Your task to perform on an android device: turn on improve location accuracy Image 0: 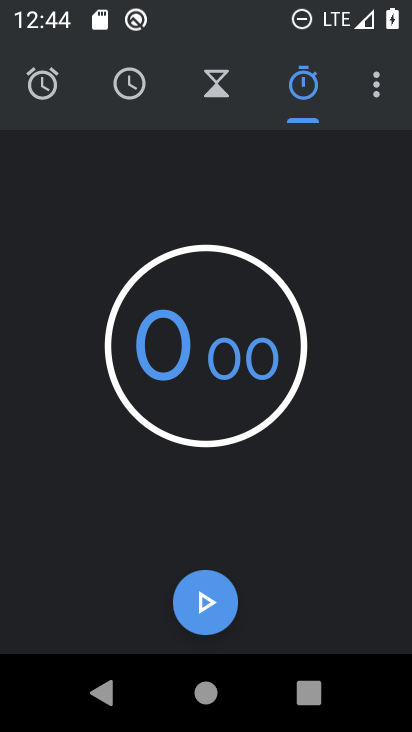
Step 0: press home button
Your task to perform on an android device: turn on improve location accuracy Image 1: 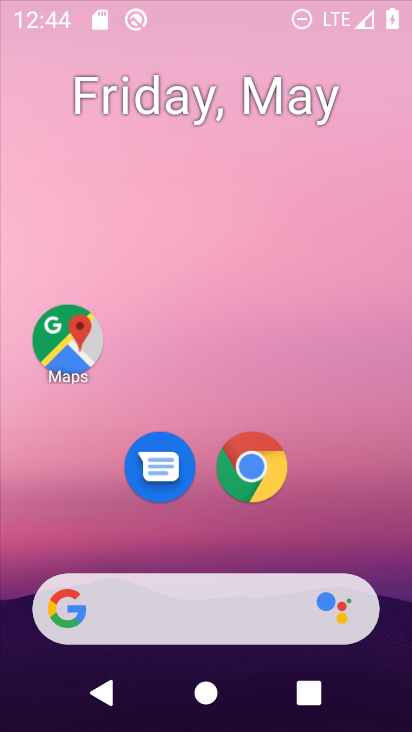
Step 1: drag from (261, 605) to (265, 8)
Your task to perform on an android device: turn on improve location accuracy Image 2: 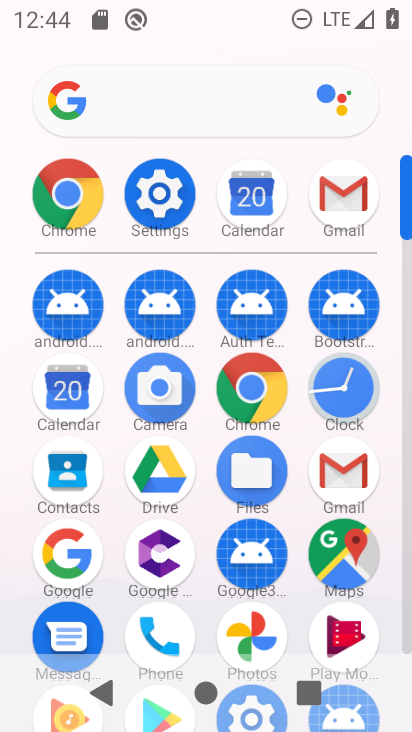
Step 2: click (154, 176)
Your task to perform on an android device: turn on improve location accuracy Image 3: 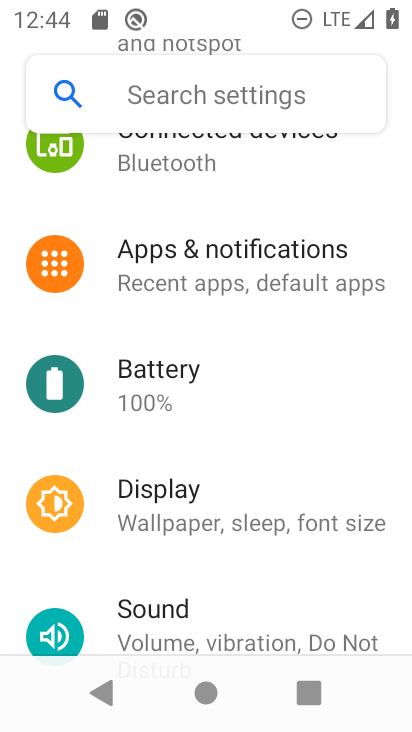
Step 3: drag from (286, 609) to (285, 76)
Your task to perform on an android device: turn on improve location accuracy Image 4: 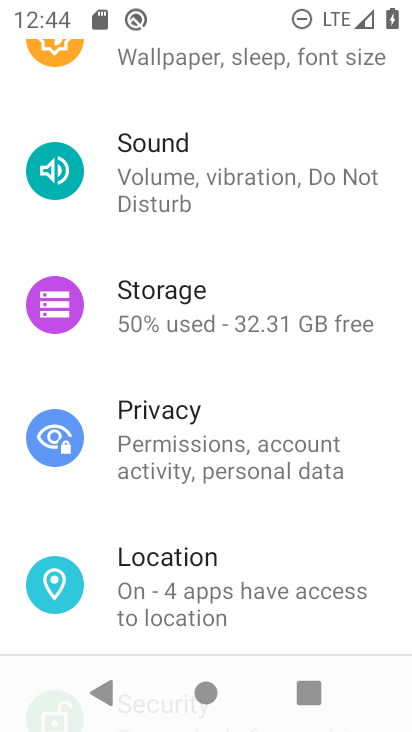
Step 4: click (245, 594)
Your task to perform on an android device: turn on improve location accuracy Image 5: 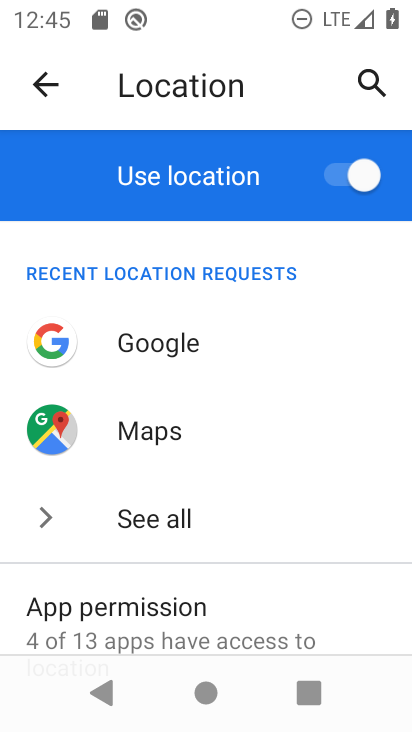
Step 5: drag from (307, 586) to (274, 180)
Your task to perform on an android device: turn on improve location accuracy Image 6: 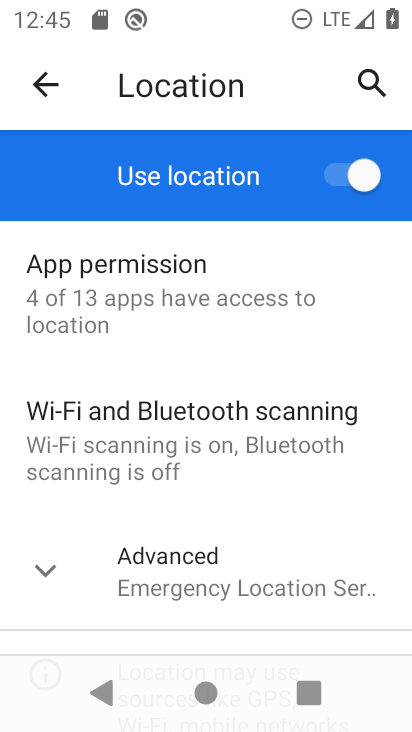
Step 6: click (246, 560)
Your task to perform on an android device: turn on improve location accuracy Image 7: 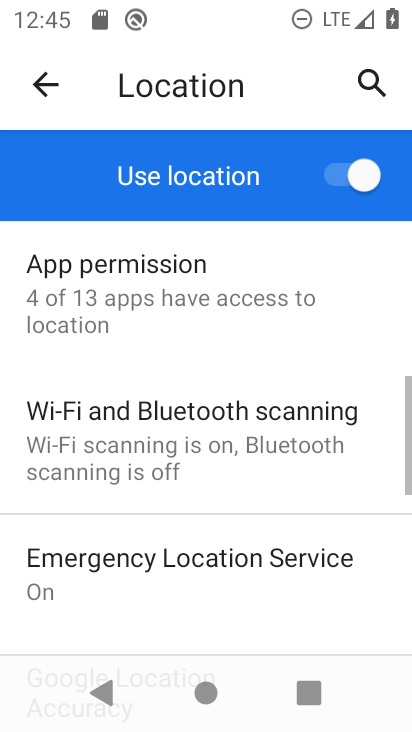
Step 7: drag from (286, 630) to (311, 228)
Your task to perform on an android device: turn on improve location accuracy Image 8: 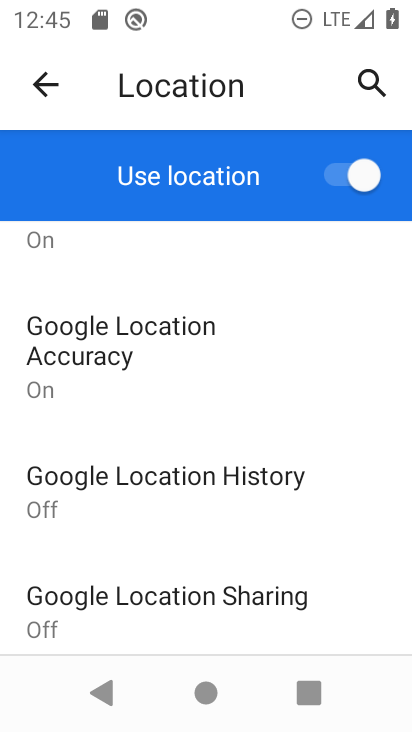
Step 8: click (155, 352)
Your task to perform on an android device: turn on improve location accuracy Image 9: 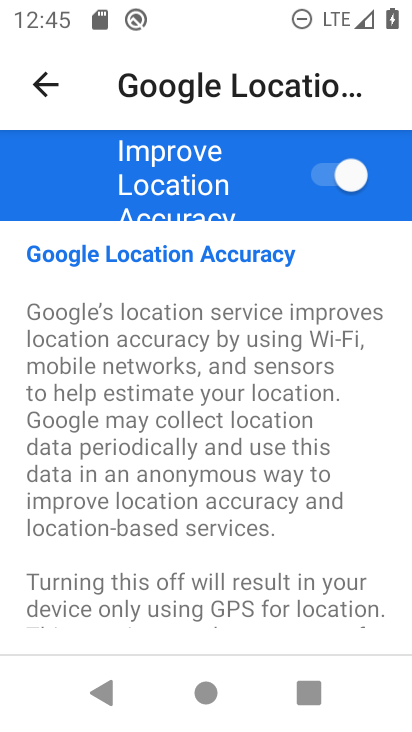
Step 9: task complete